Your task to perform on an android device: Open Chrome and go to settings Image 0: 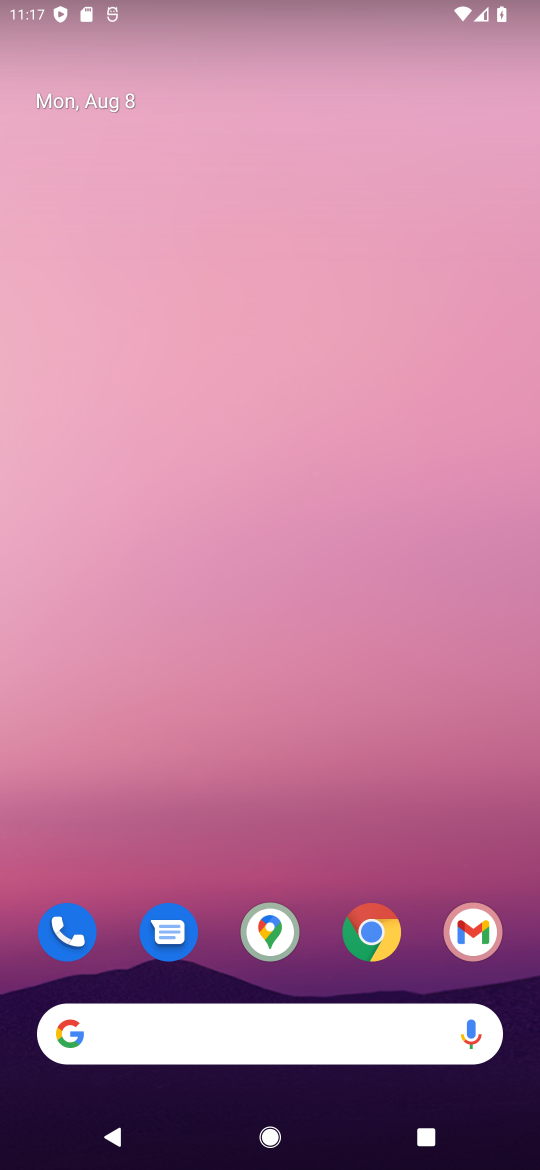
Step 0: click (359, 917)
Your task to perform on an android device: Open Chrome and go to settings Image 1: 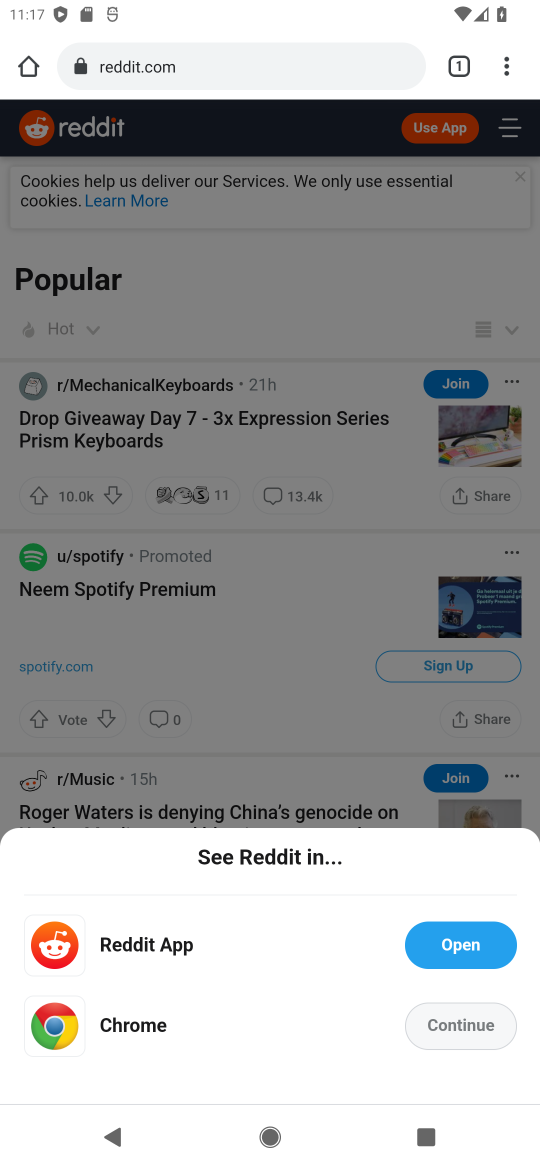
Step 1: click (518, 70)
Your task to perform on an android device: Open Chrome and go to settings Image 2: 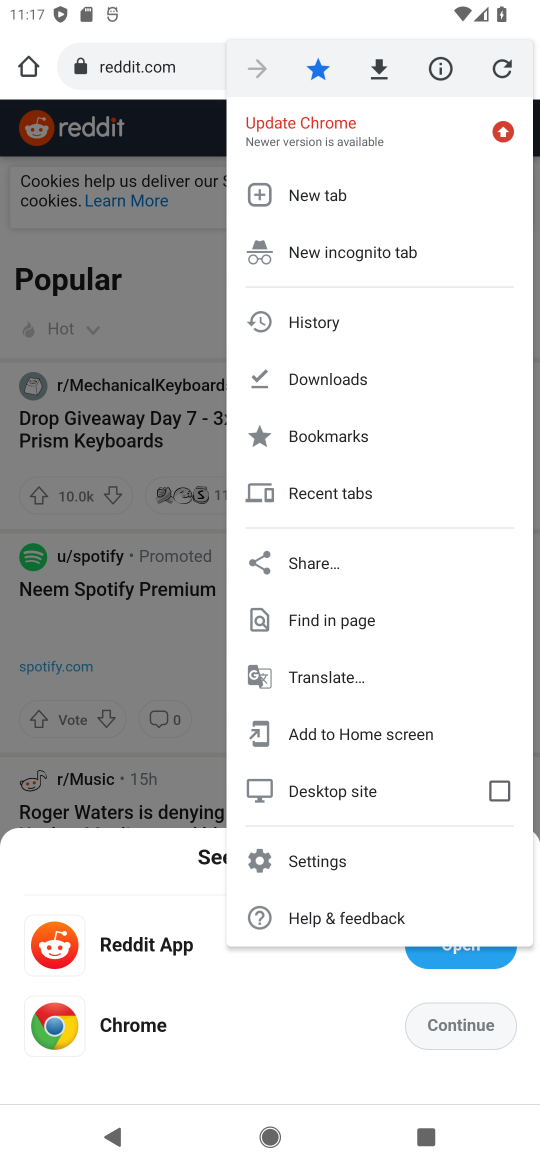
Step 2: click (323, 878)
Your task to perform on an android device: Open Chrome and go to settings Image 3: 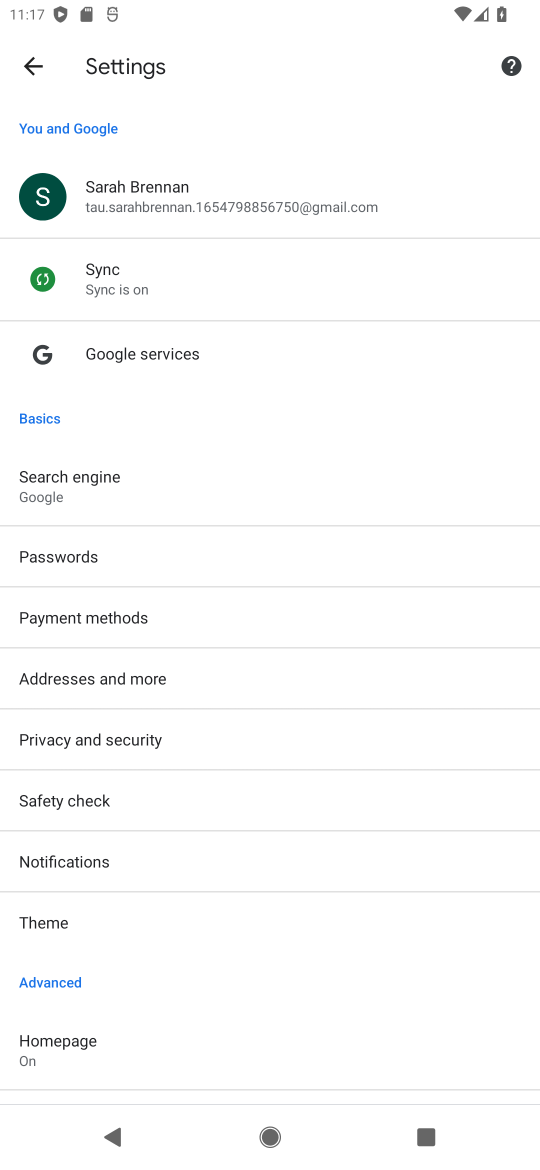
Step 3: task complete